Your task to perform on an android device: Go to Amazon Image 0: 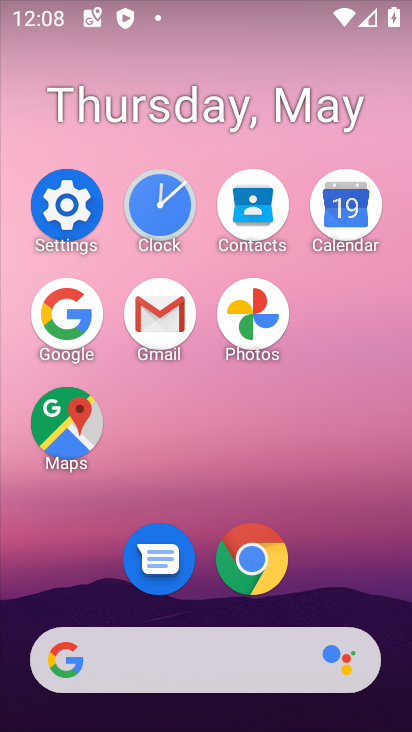
Step 0: click (269, 575)
Your task to perform on an android device: Go to Amazon Image 1: 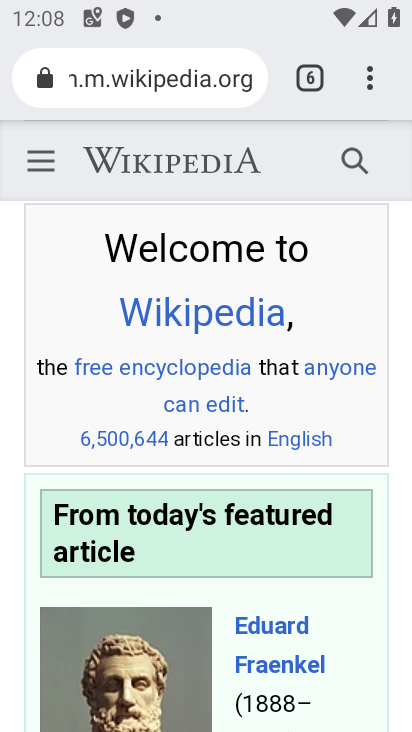
Step 1: click (295, 74)
Your task to perform on an android device: Go to Amazon Image 2: 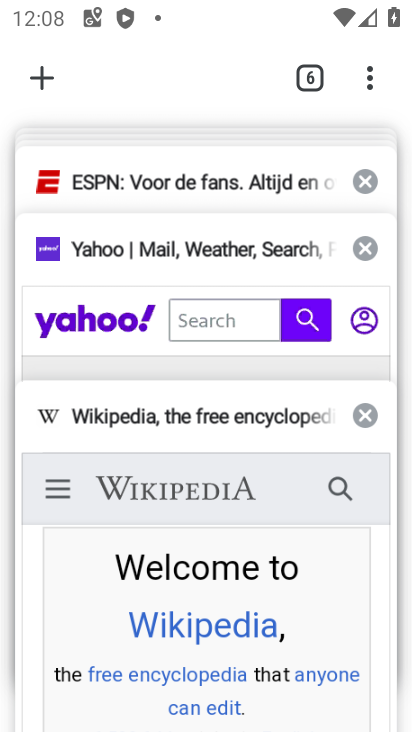
Step 2: drag from (201, 216) to (212, 511)
Your task to perform on an android device: Go to Amazon Image 3: 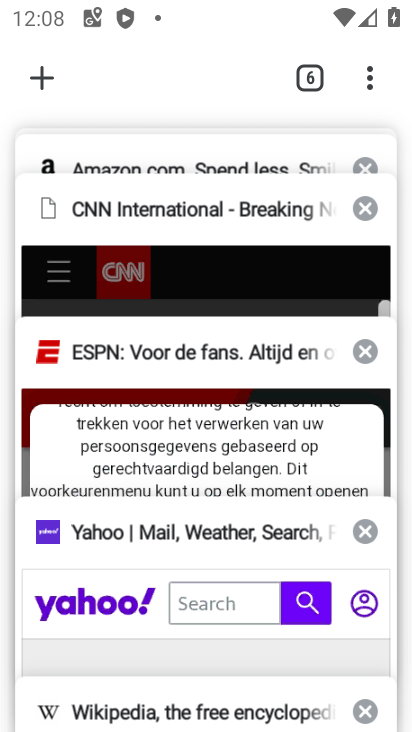
Step 3: drag from (196, 198) to (199, 543)
Your task to perform on an android device: Go to Amazon Image 4: 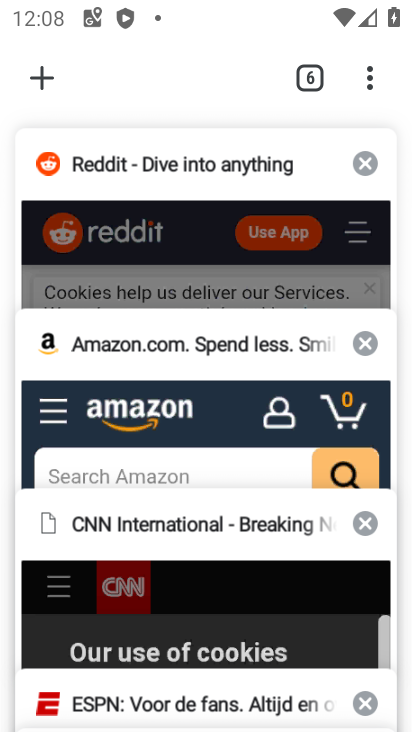
Step 4: click (107, 342)
Your task to perform on an android device: Go to Amazon Image 5: 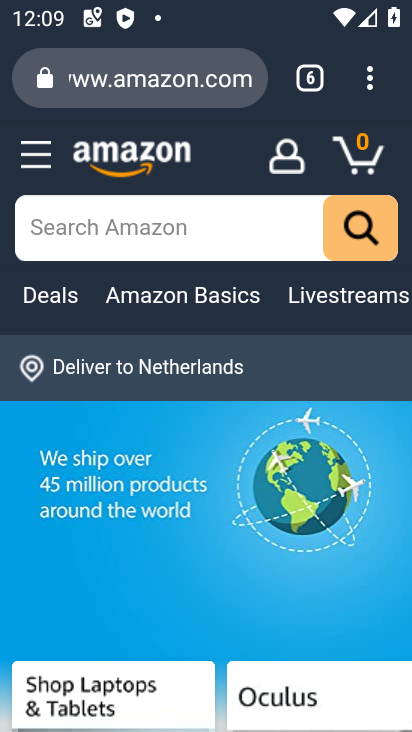
Step 5: task complete